Your task to perform on an android device: Go to battery settings Image 0: 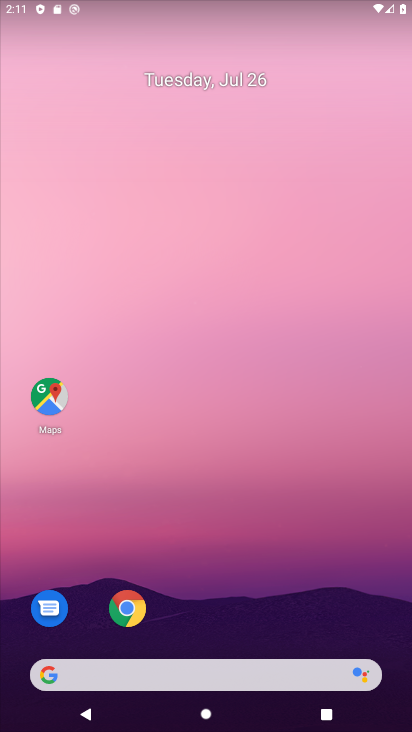
Step 0: drag from (265, 594) to (278, 243)
Your task to perform on an android device: Go to battery settings Image 1: 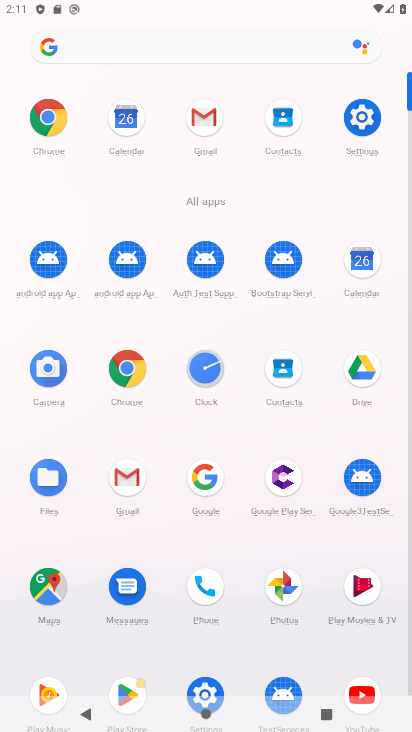
Step 1: click (368, 130)
Your task to perform on an android device: Go to battery settings Image 2: 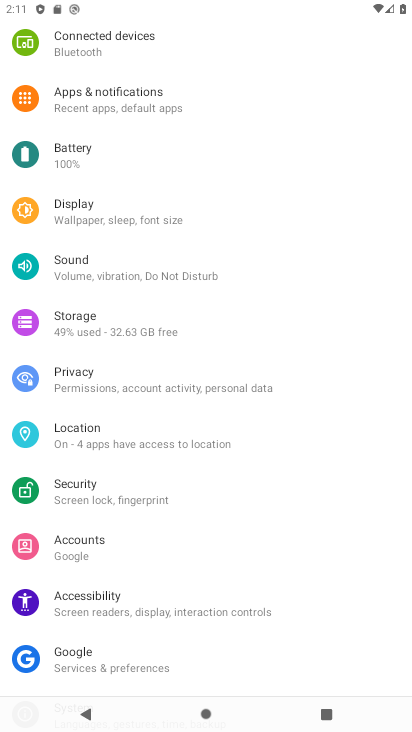
Step 2: click (87, 162)
Your task to perform on an android device: Go to battery settings Image 3: 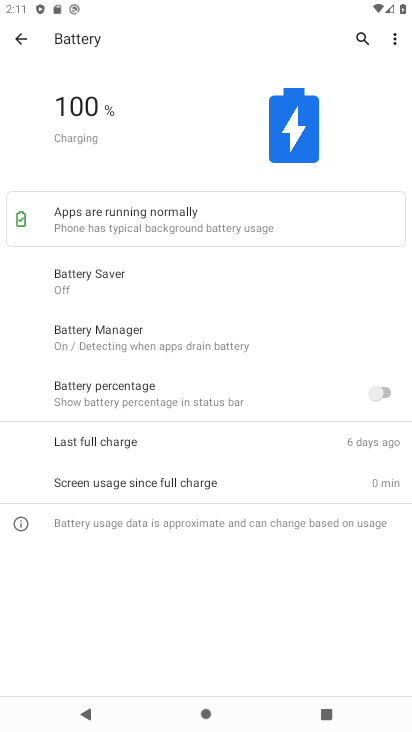
Step 3: task complete